Your task to perform on an android device: toggle priority inbox in the gmail app Image 0: 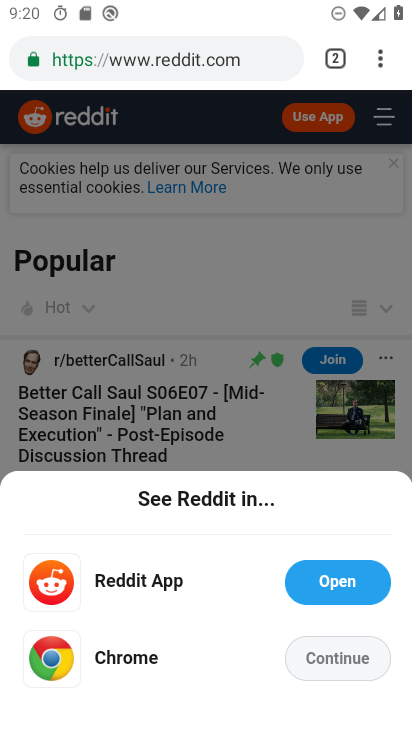
Step 0: press home button
Your task to perform on an android device: toggle priority inbox in the gmail app Image 1: 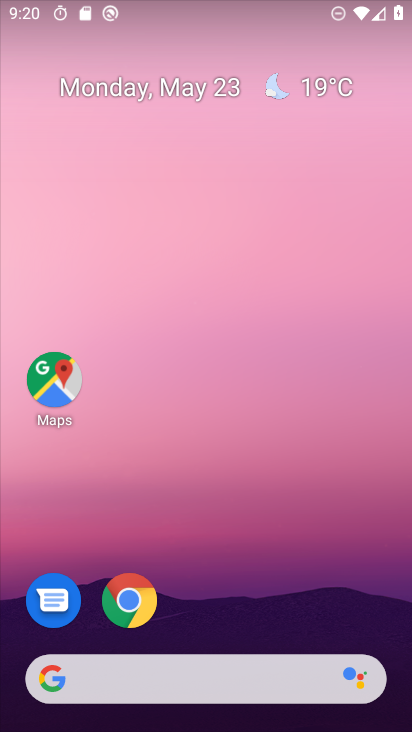
Step 1: drag from (25, 608) to (228, 196)
Your task to perform on an android device: toggle priority inbox in the gmail app Image 2: 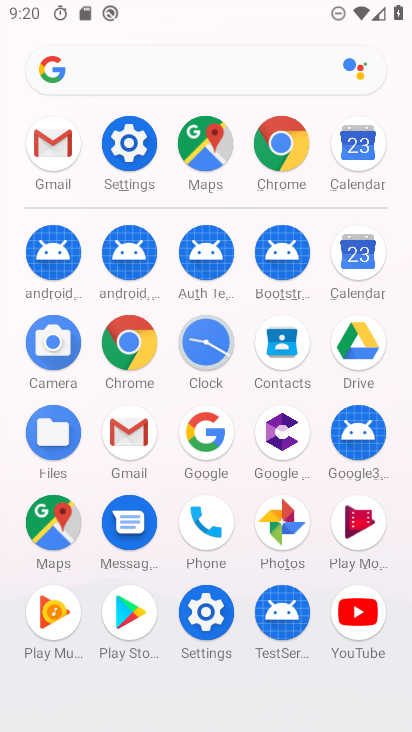
Step 2: click (45, 146)
Your task to perform on an android device: toggle priority inbox in the gmail app Image 3: 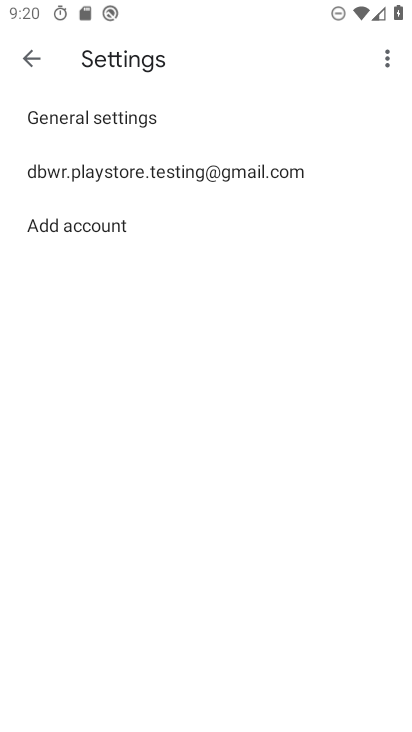
Step 3: click (139, 174)
Your task to perform on an android device: toggle priority inbox in the gmail app Image 4: 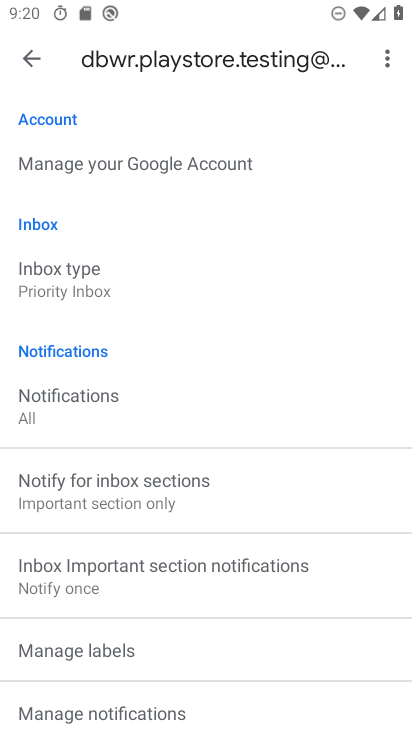
Step 4: click (156, 296)
Your task to perform on an android device: toggle priority inbox in the gmail app Image 5: 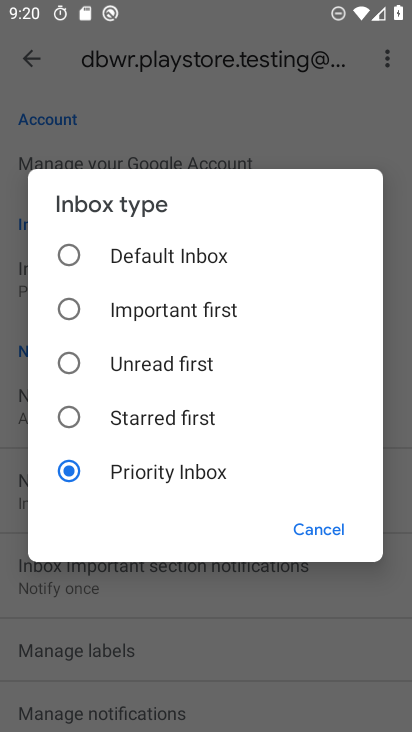
Step 5: click (142, 259)
Your task to perform on an android device: toggle priority inbox in the gmail app Image 6: 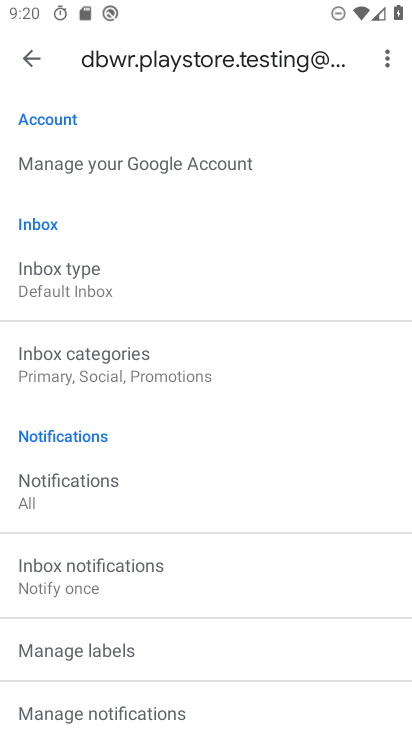
Step 6: task complete